Your task to perform on an android device: When is my next meeting? Image 0: 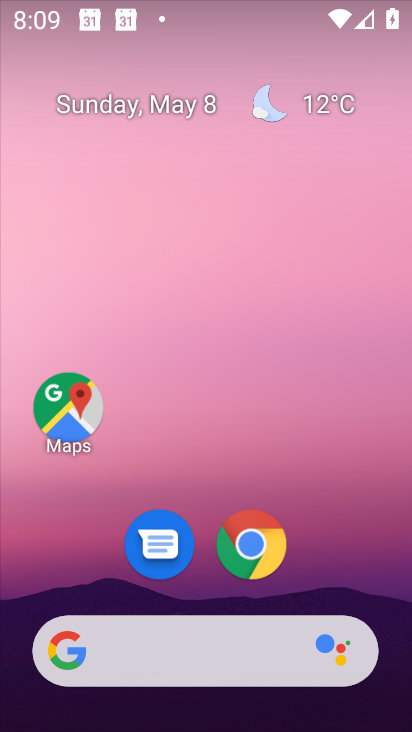
Step 0: drag from (346, 570) to (219, 56)
Your task to perform on an android device: When is my next meeting? Image 1: 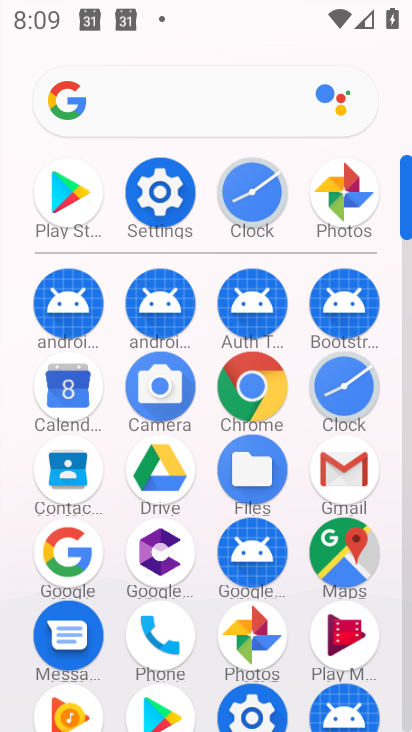
Step 1: click (69, 394)
Your task to perform on an android device: When is my next meeting? Image 2: 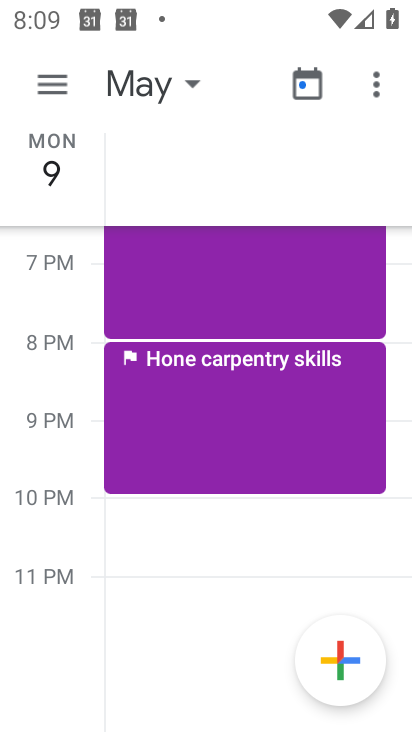
Step 2: click (51, 81)
Your task to perform on an android device: When is my next meeting? Image 3: 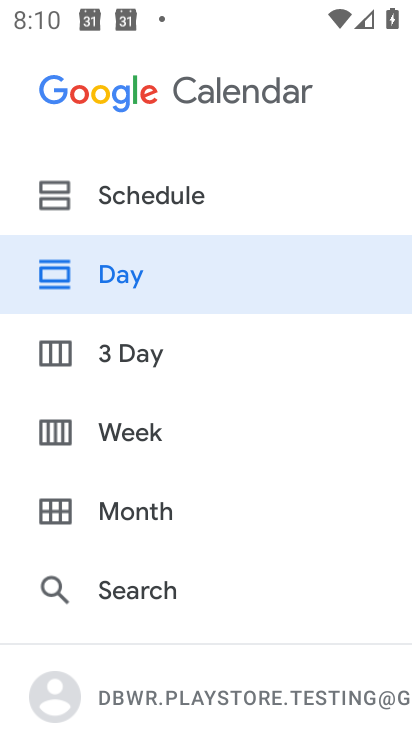
Step 3: click (122, 427)
Your task to perform on an android device: When is my next meeting? Image 4: 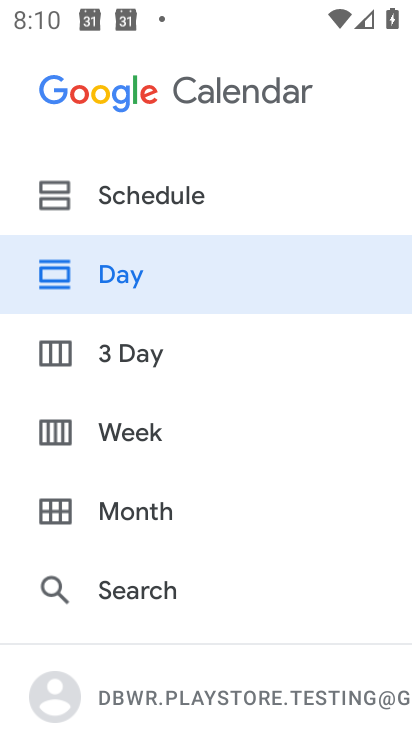
Step 4: click (122, 427)
Your task to perform on an android device: When is my next meeting? Image 5: 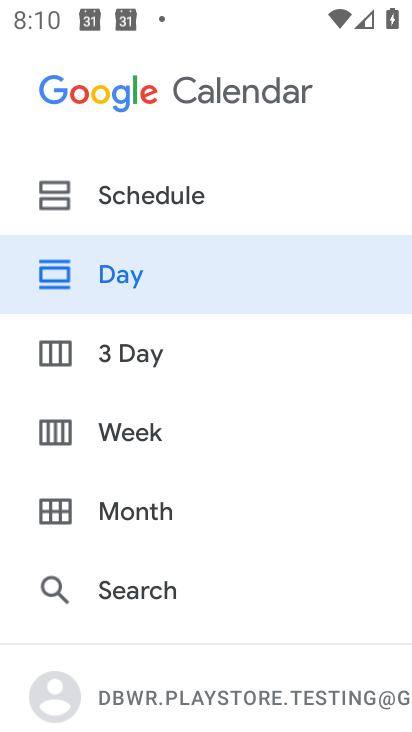
Step 5: click (121, 428)
Your task to perform on an android device: When is my next meeting? Image 6: 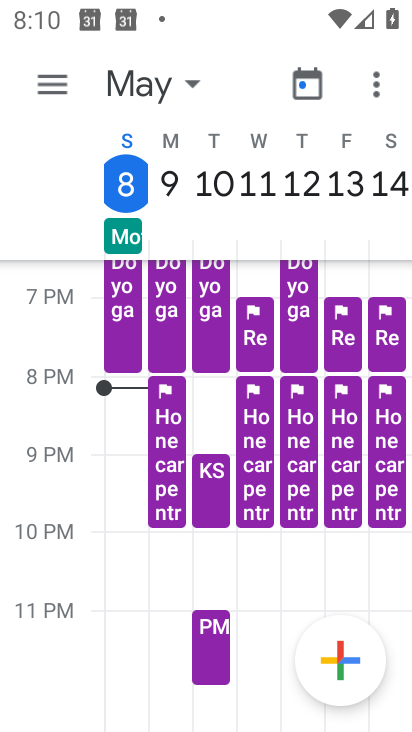
Step 6: task complete